Your task to perform on an android device: turn off location history Image 0: 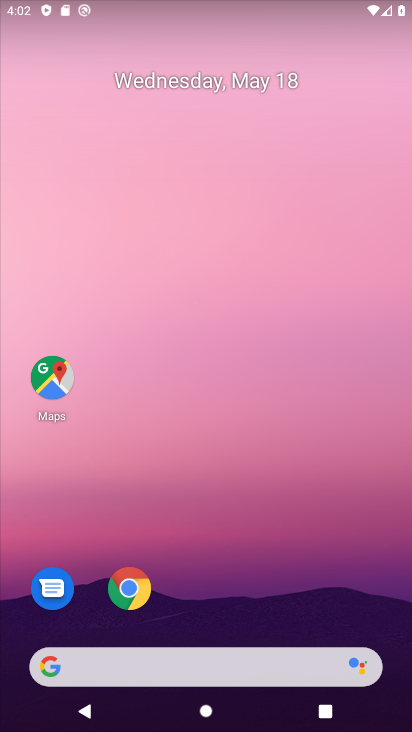
Step 0: drag from (279, 608) to (187, 37)
Your task to perform on an android device: turn off location history Image 1: 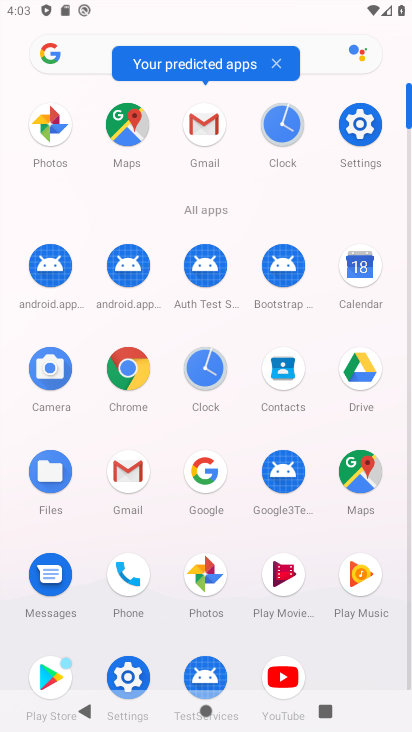
Step 1: click (354, 119)
Your task to perform on an android device: turn off location history Image 2: 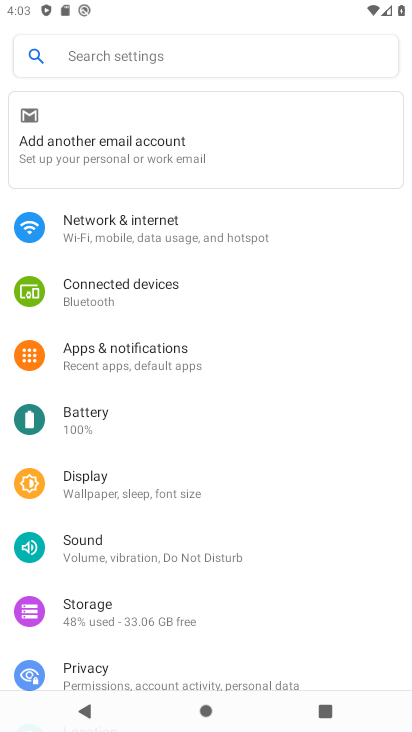
Step 2: drag from (177, 618) to (223, 305)
Your task to perform on an android device: turn off location history Image 3: 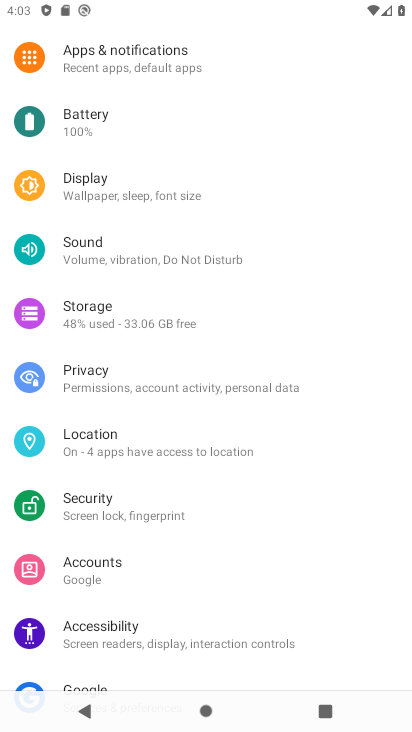
Step 3: click (145, 433)
Your task to perform on an android device: turn off location history Image 4: 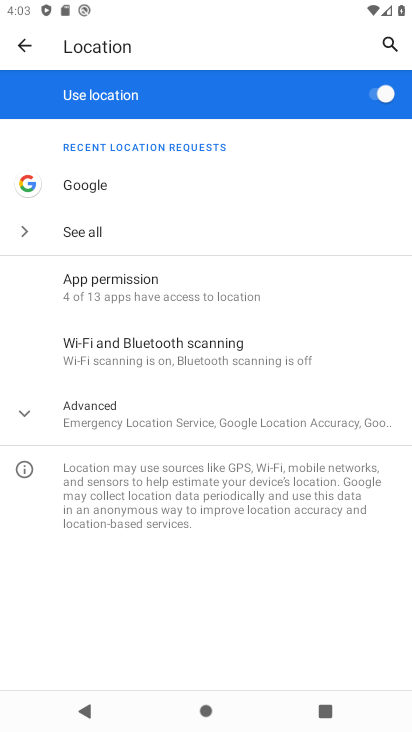
Step 4: click (144, 416)
Your task to perform on an android device: turn off location history Image 5: 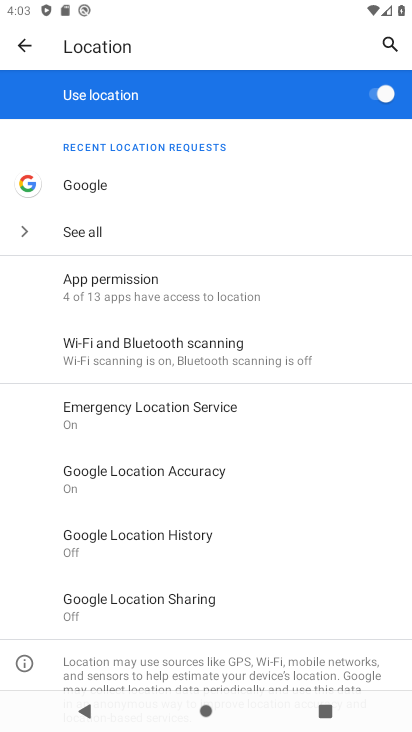
Step 5: click (183, 537)
Your task to perform on an android device: turn off location history Image 6: 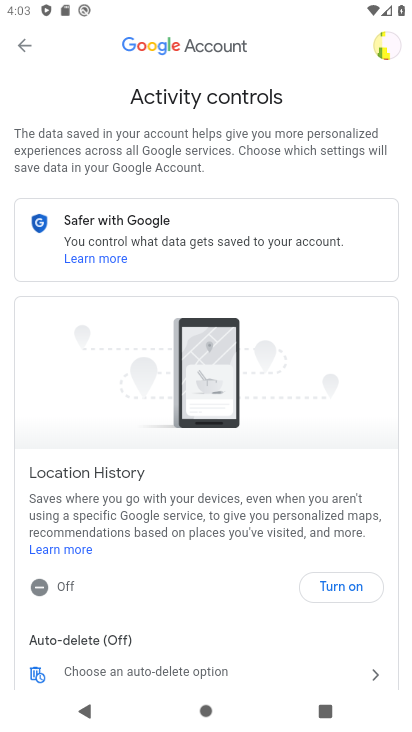
Step 6: click (41, 590)
Your task to perform on an android device: turn off location history Image 7: 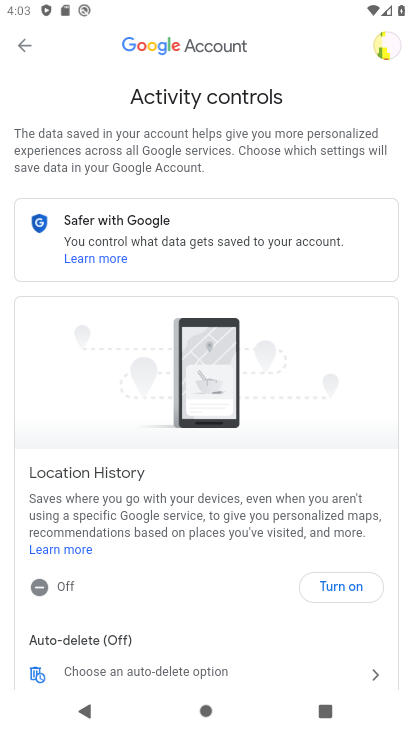
Step 7: task complete